Your task to perform on an android device: check battery use Image 0: 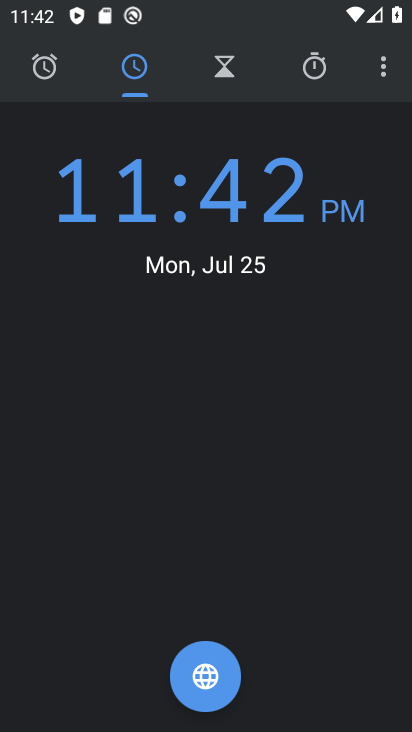
Step 0: press home button
Your task to perform on an android device: check battery use Image 1: 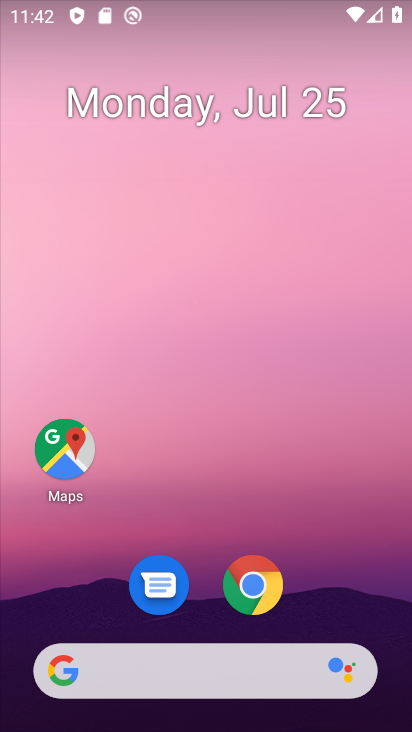
Step 1: drag from (319, 615) to (354, 42)
Your task to perform on an android device: check battery use Image 2: 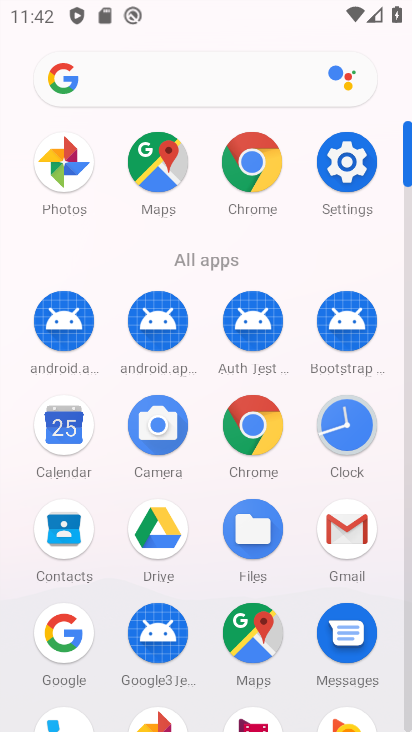
Step 2: click (352, 154)
Your task to perform on an android device: check battery use Image 3: 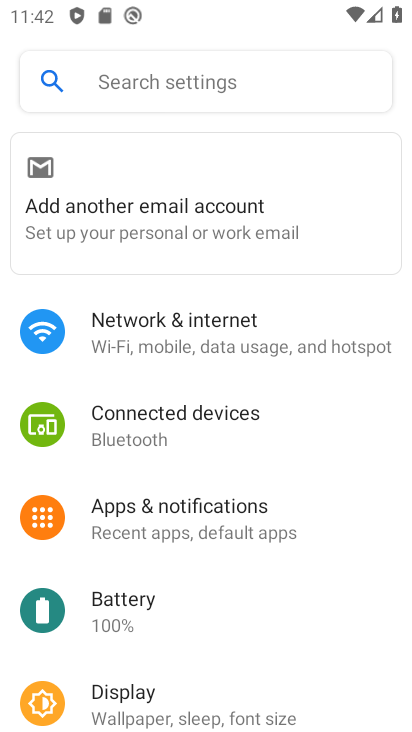
Step 3: click (129, 604)
Your task to perform on an android device: check battery use Image 4: 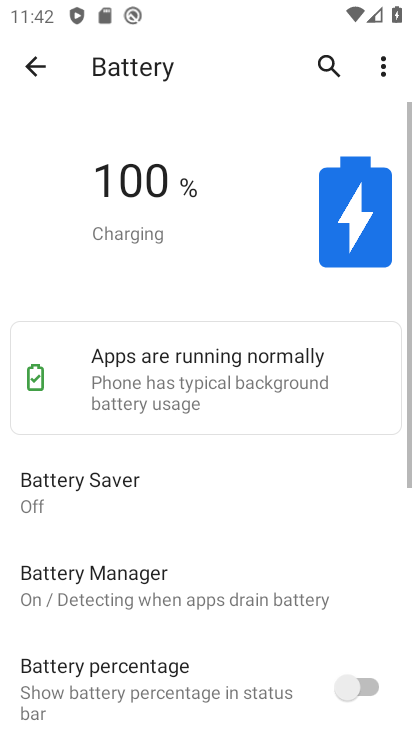
Step 4: click (382, 69)
Your task to perform on an android device: check battery use Image 5: 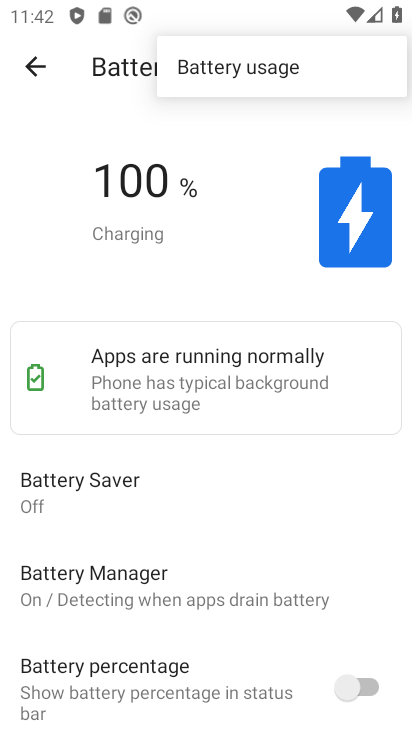
Step 5: click (298, 60)
Your task to perform on an android device: check battery use Image 6: 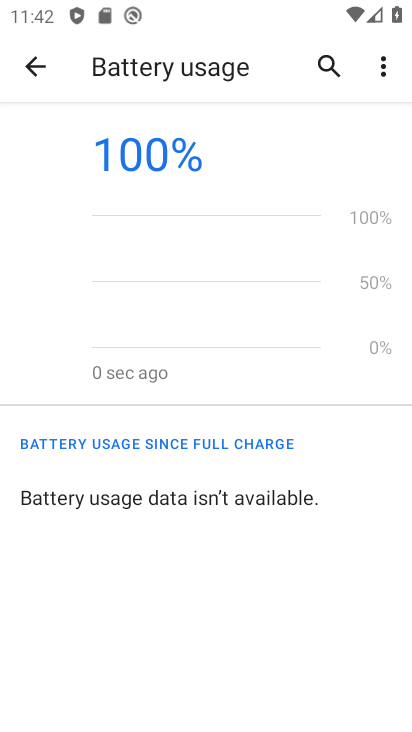
Step 6: task complete